Your task to perform on an android device: open app "Adobe Acrobat Reader: Edit PDF" Image 0: 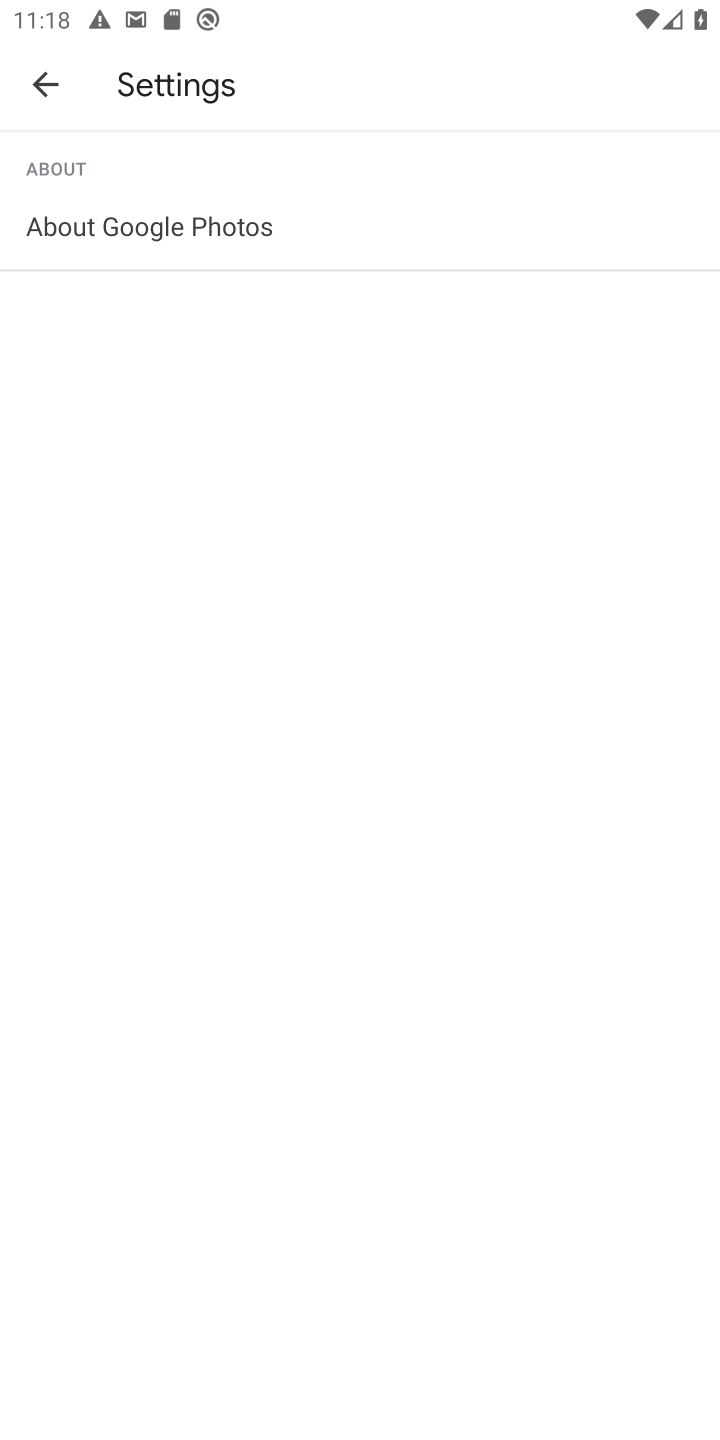
Step 0: press home button
Your task to perform on an android device: open app "Adobe Acrobat Reader: Edit PDF" Image 1: 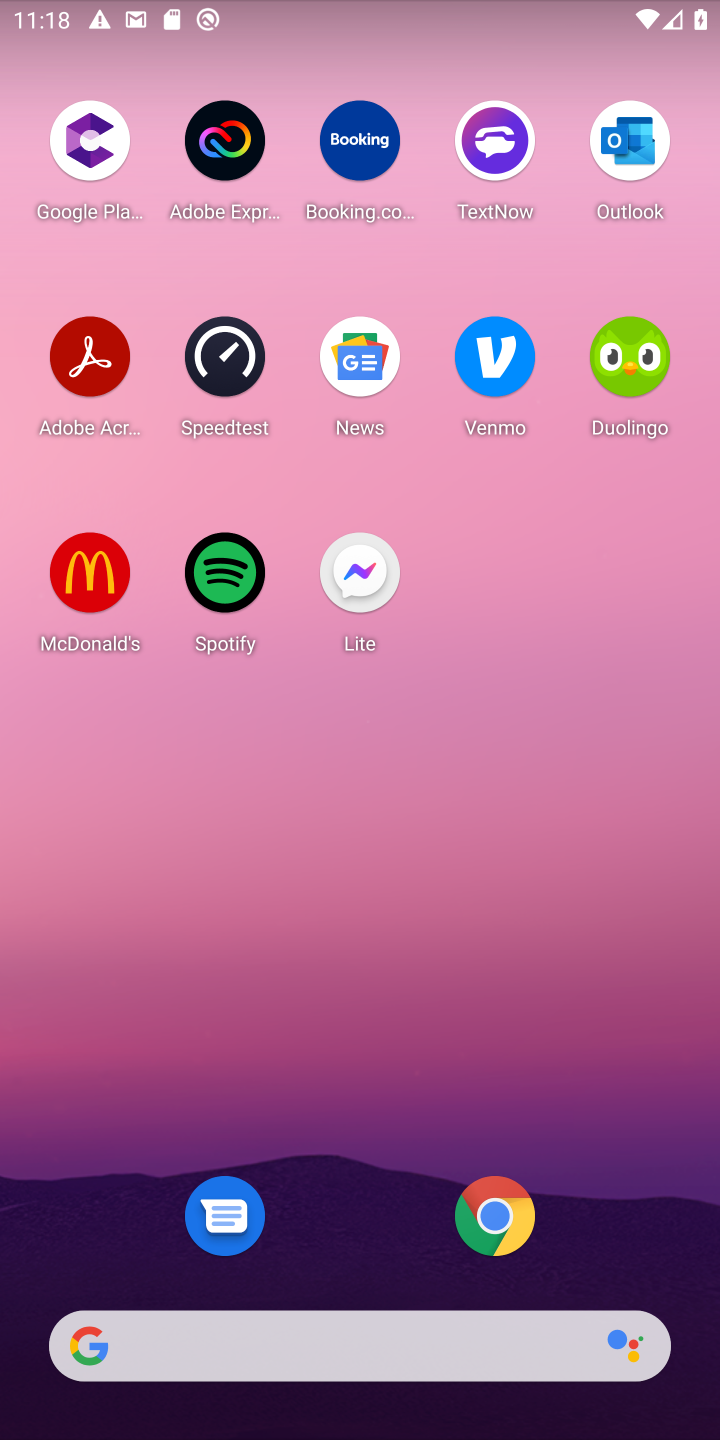
Step 1: drag from (285, 1344) to (491, 371)
Your task to perform on an android device: open app "Adobe Acrobat Reader: Edit PDF" Image 2: 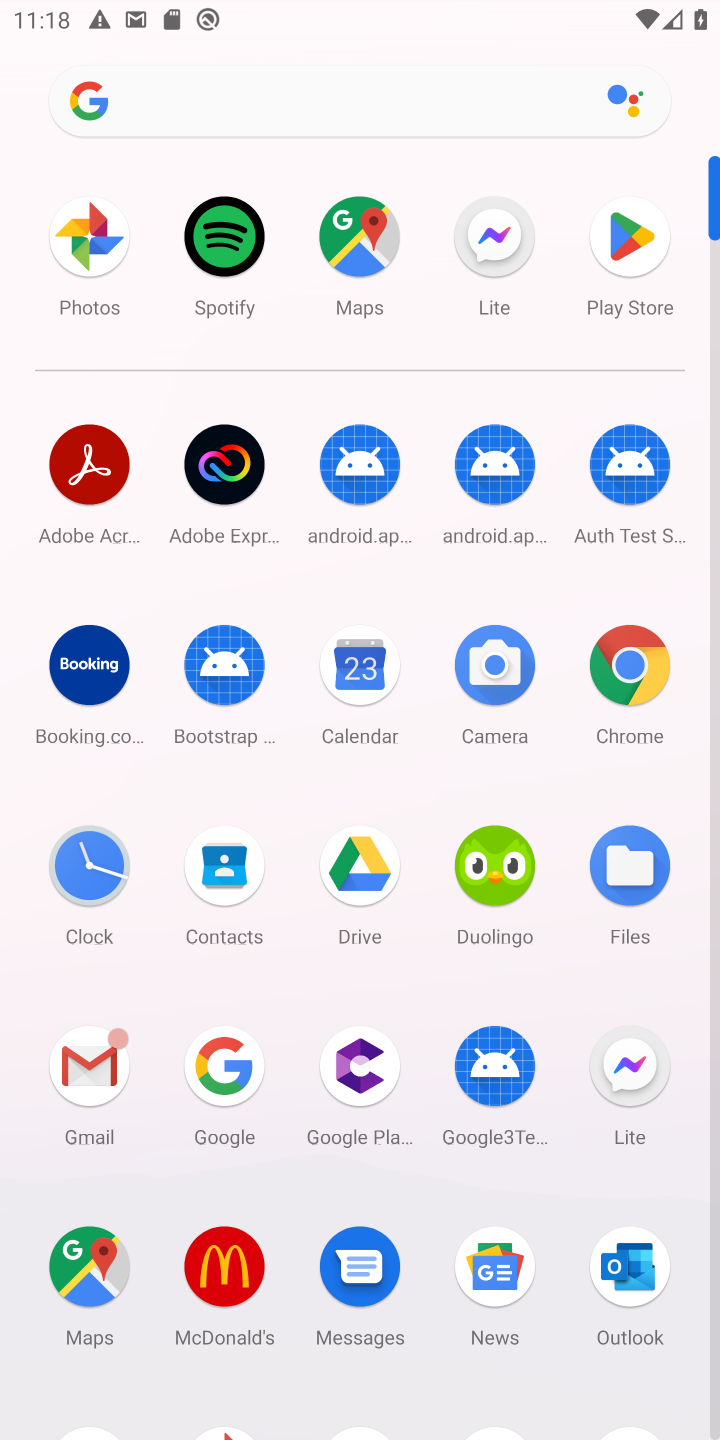
Step 2: click (637, 249)
Your task to perform on an android device: open app "Adobe Acrobat Reader: Edit PDF" Image 3: 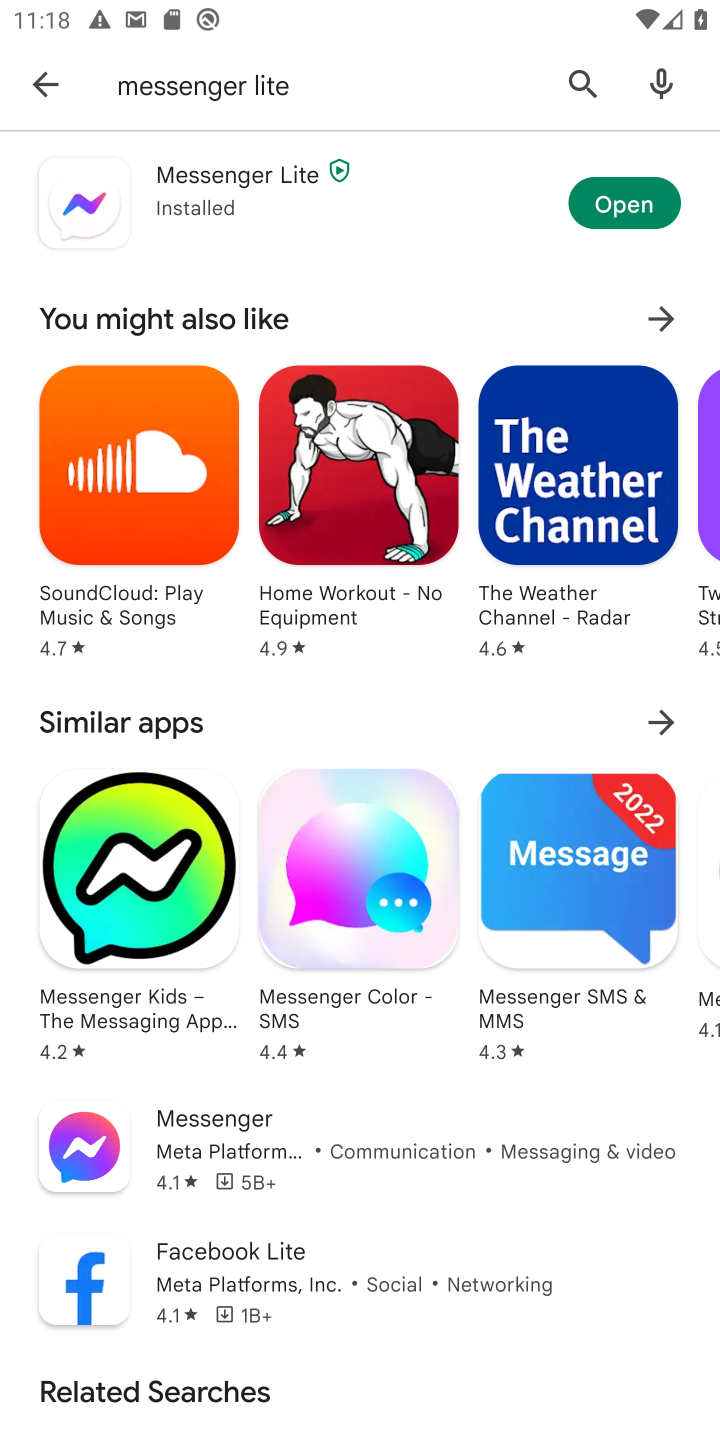
Step 3: press back button
Your task to perform on an android device: open app "Adobe Acrobat Reader: Edit PDF" Image 4: 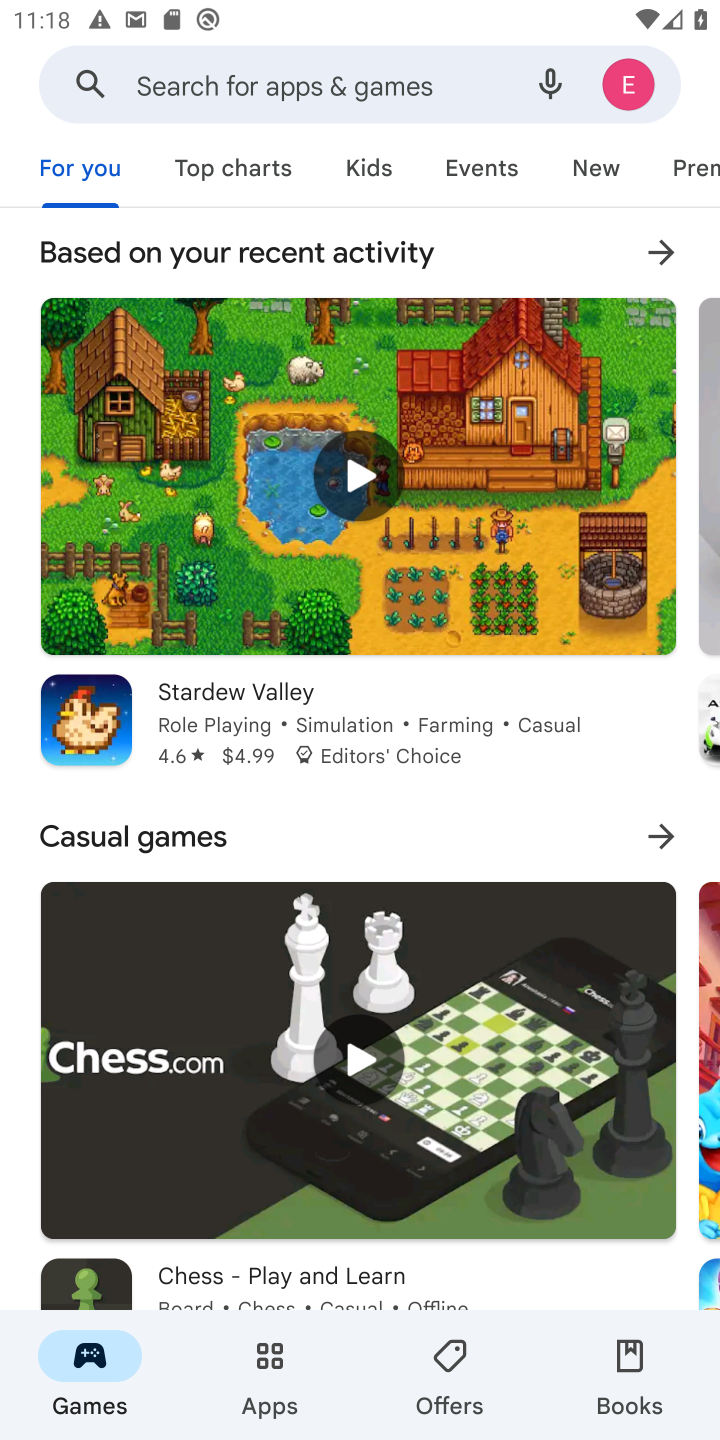
Step 4: click (433, 86)
Your task to perform on an android device: open app "Adobe Acrobat Reader: Edit PDF" Image 5: 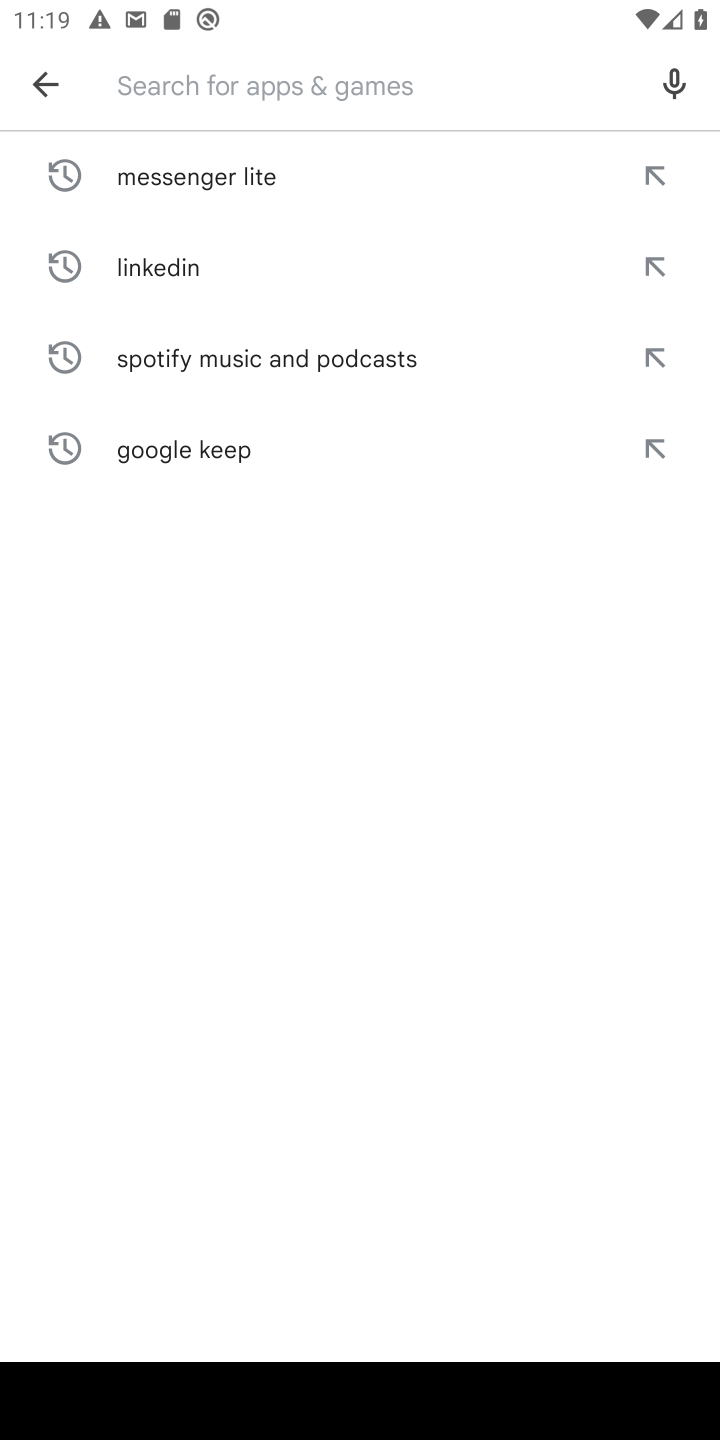
Step 5: type "Adobe Acrobat Reader: Edit PDF"
Your task to perform on an android device: open app "Adobe Acrobat Reader: Edit PDF" Image 6: 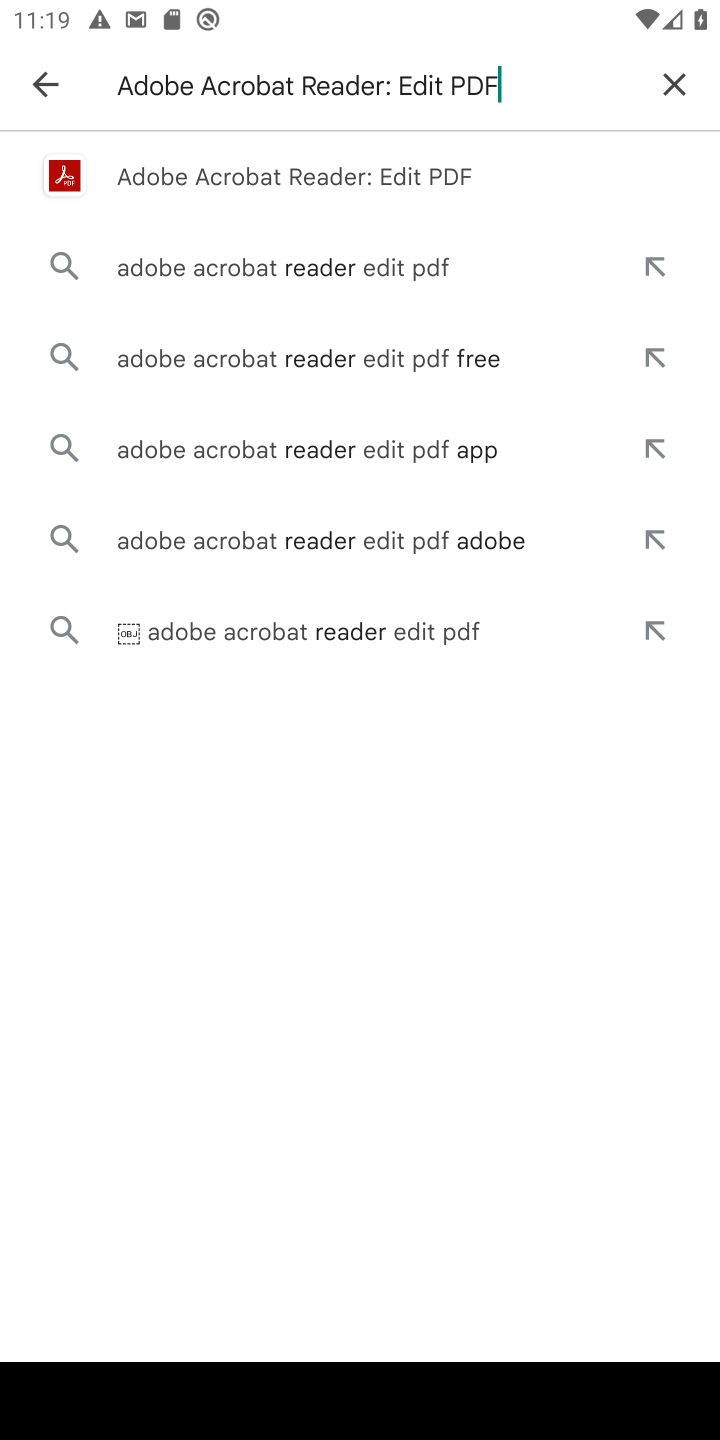
Step 6: click (190, 189)
Your task to perform on an android device: open app "Adobe Acrobat Reader: Edit PDF" Image 7: 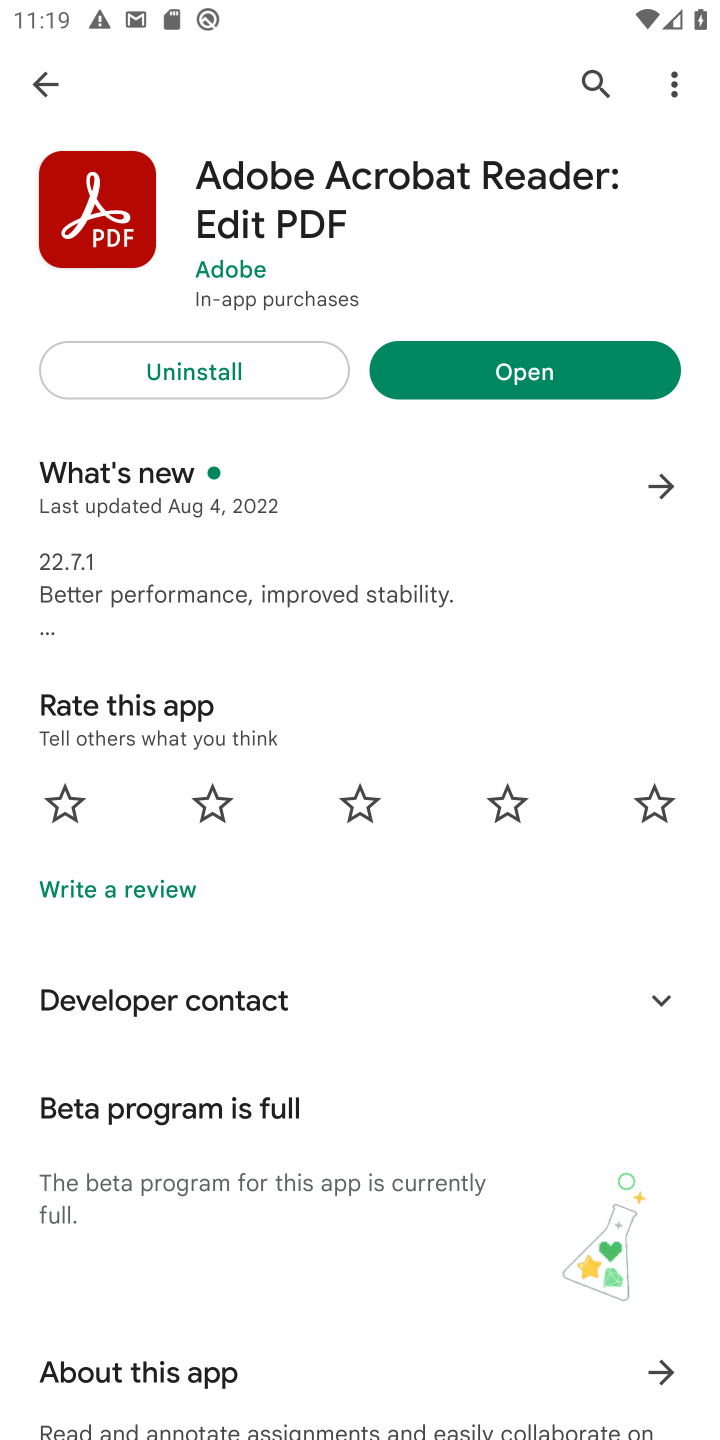
Step 7: click (452, 373)
Your task to perform on an android device: open app "Adobe Acrobat Reader: Edit PDF" Image 8: 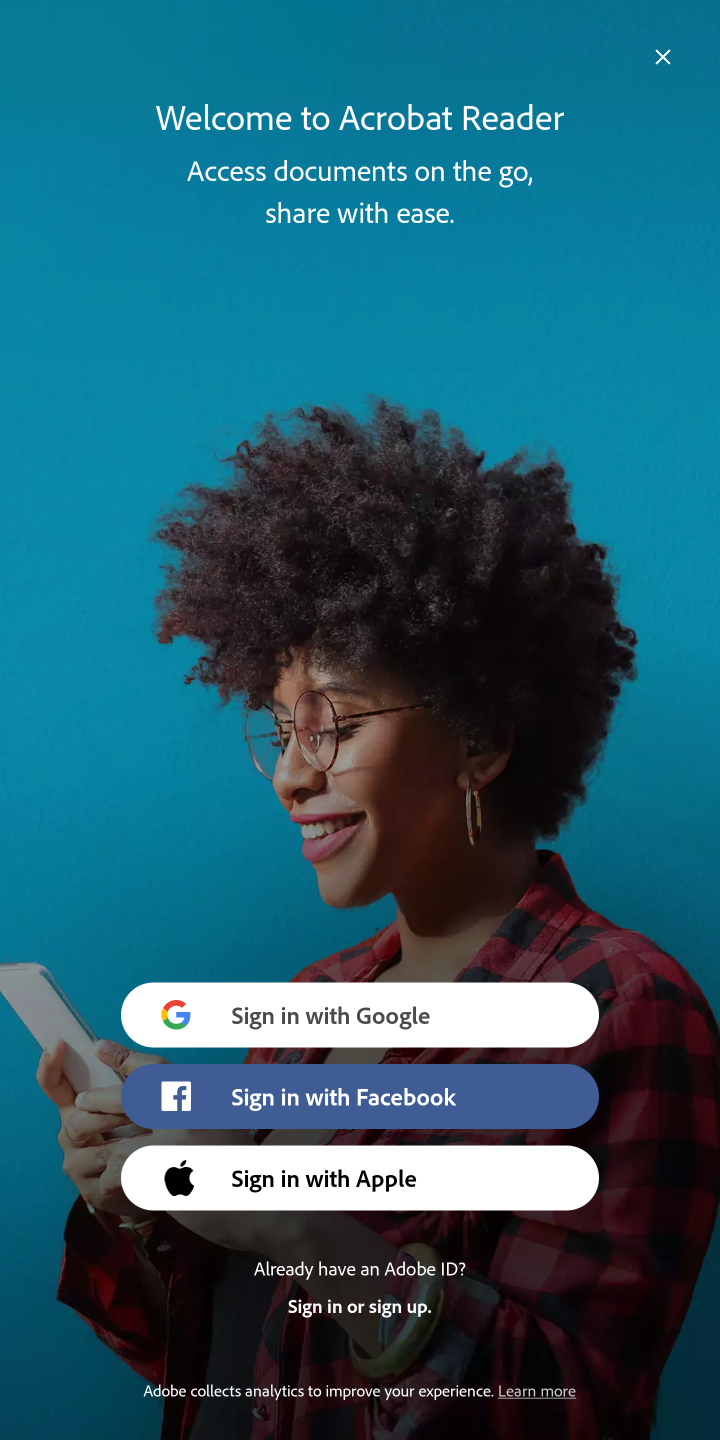
Step 8: task complete